Your task to perform on an android device: Go to accessibility settings Image 0: 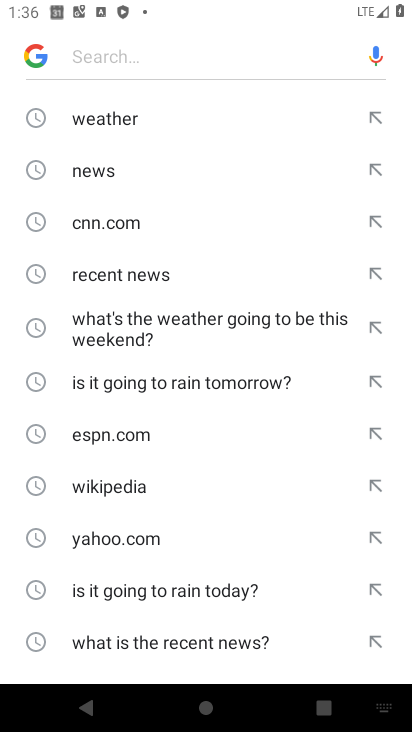
Step 0: press home button
Your task to perform on an android device: Go to accessibility settings Image 1: 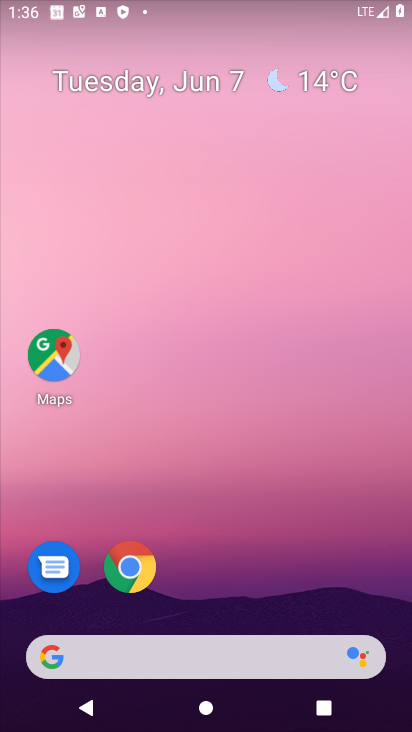
Step 1: drag from (185, 502) to (251, 30)
Your task to perform on an android device: Go to accessibility settings Image 2: 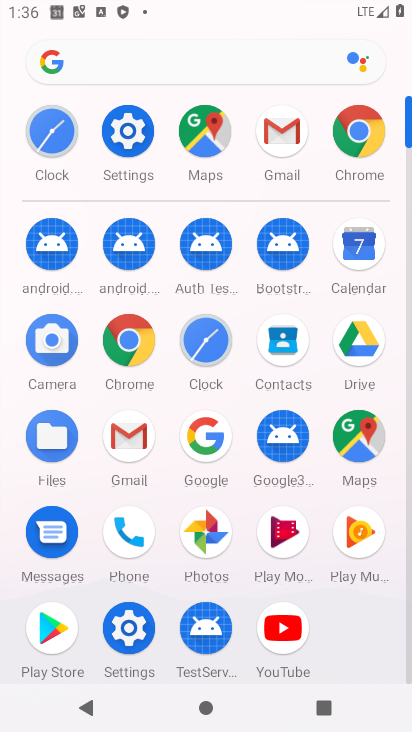
Step 2: click (137, 141)
Your task to perform on an android device: Go to accessibility settings Image 3: 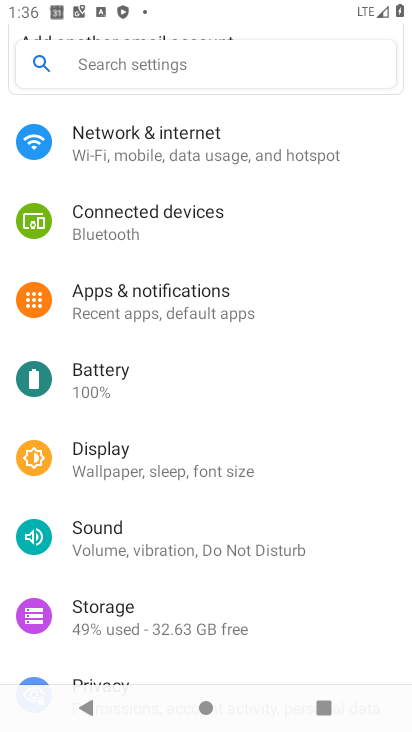
Step 3: drag from (218, 482) to (176, 100)
Your task to perform on an android device: Go to accessibility settings Image 4: 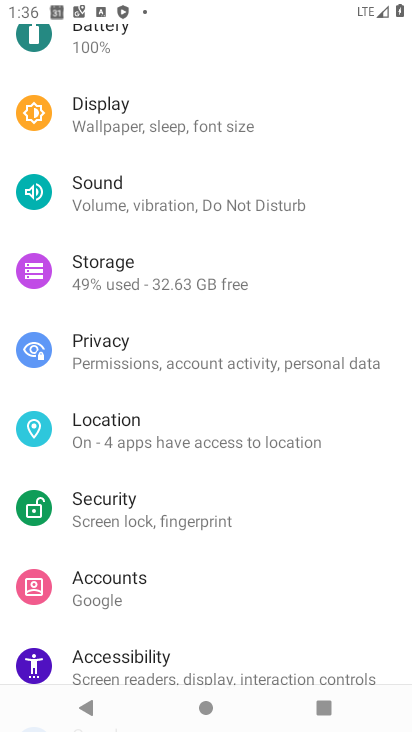
Step 4: click (166, 657)
Your task to perform on an android device: Go to accessibility settings Image 5: 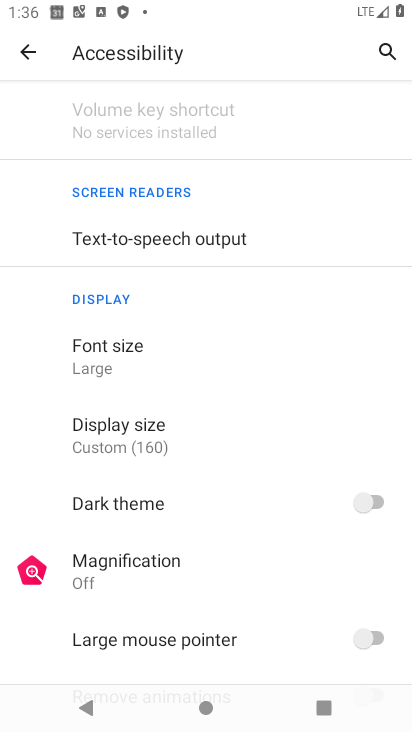
Step 5: task complete